Your task to perform on an android device: What's the weather today? Image 0: 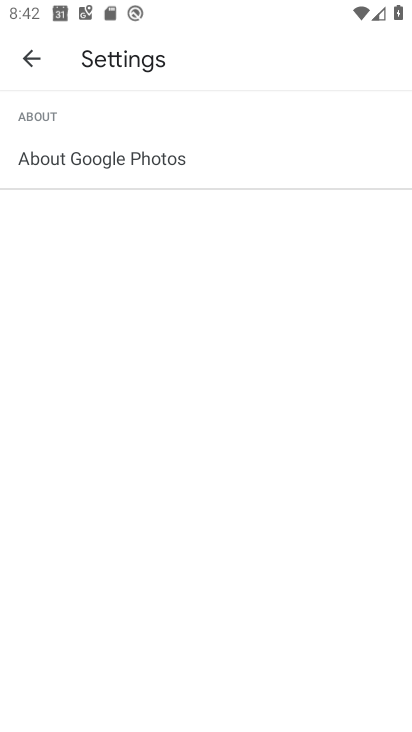
Step 0: press home button
Your task to perform on an android device: What's the weather today? Image 1: 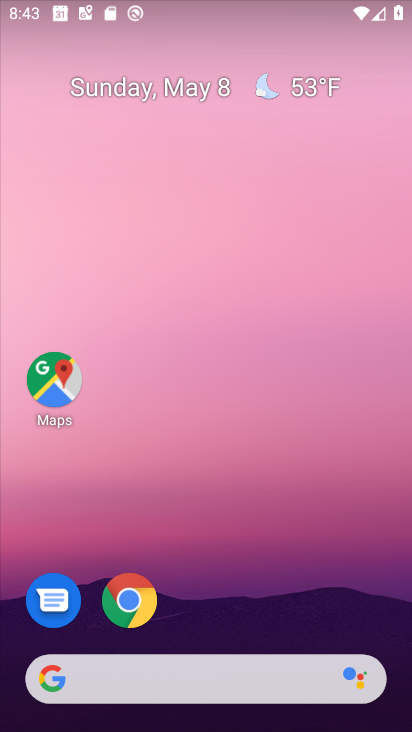
Step 1: drag from (179, 653) to (115, 20)
Your task to perform on an android device: What's the weather today? Image 2: 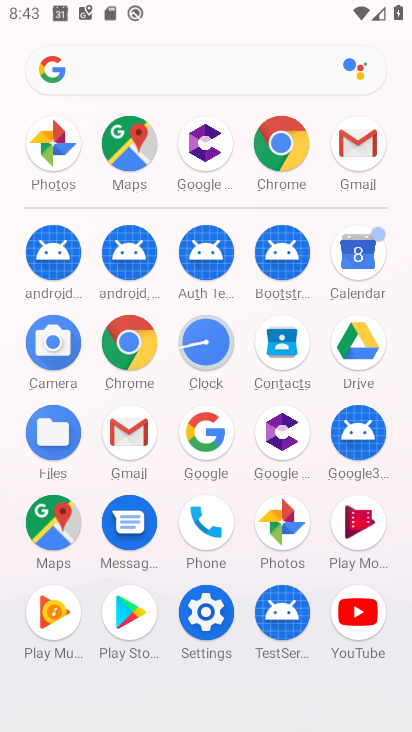
Step 2: click (189, 449)
Your task to perform on an android device: What's the weather today? Image 3: 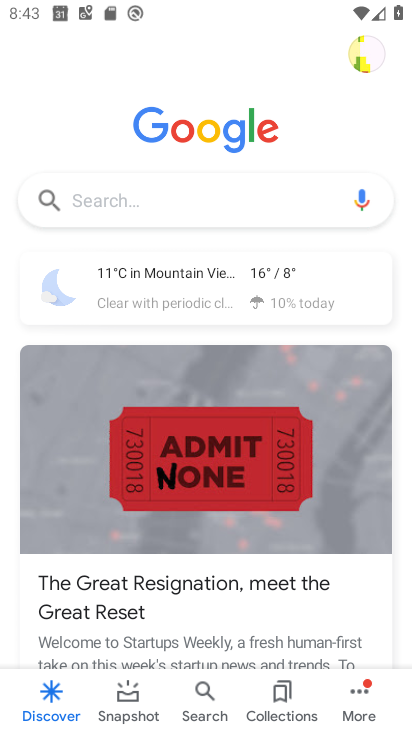
Step 3: click (173, 212)
Your task to perform on an android device: What's the weather today? Image 4: 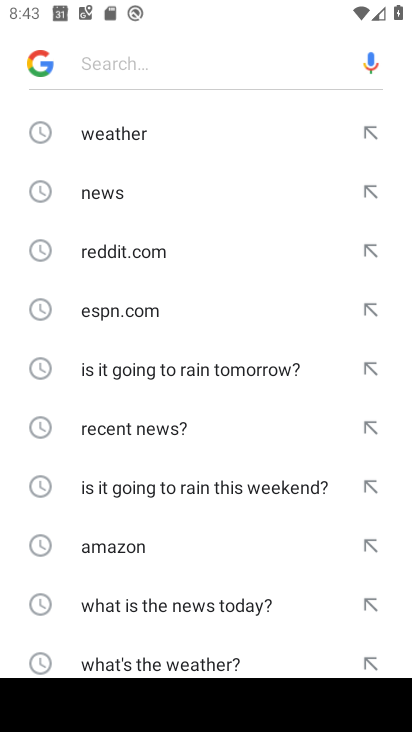
Step 4: click (195, 143)
Your task to perform on an android device: What's the weather today? Image 5: 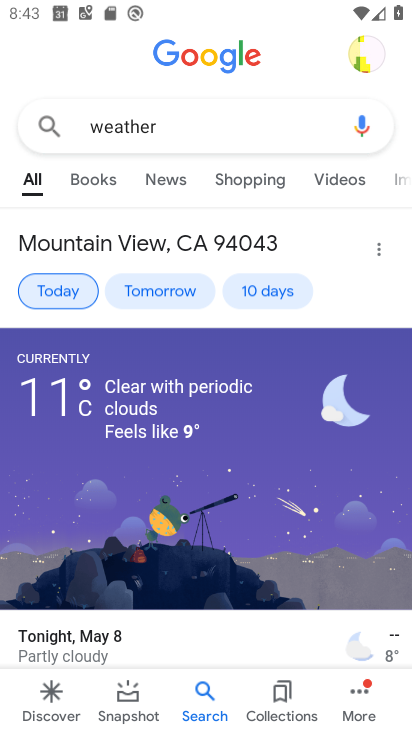
Step 5: task complete